Your task to perform on an android device: toggle data saver in the chrome app Image 0: 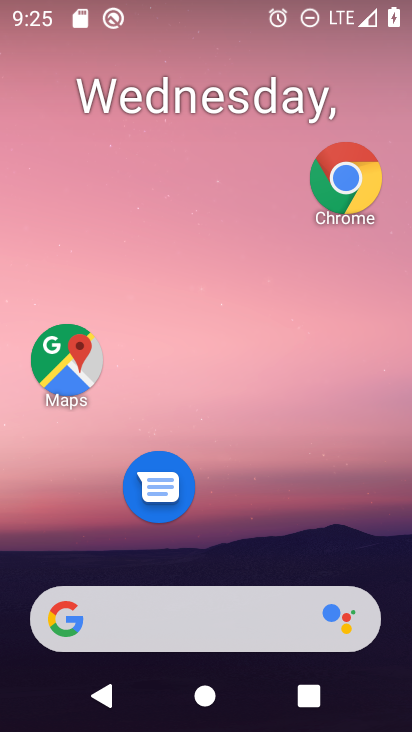
Step 0: drag from (293, 594) to (384, 26)
Your task to perform on an android device: toggle data saver in the chrome app Image 1: 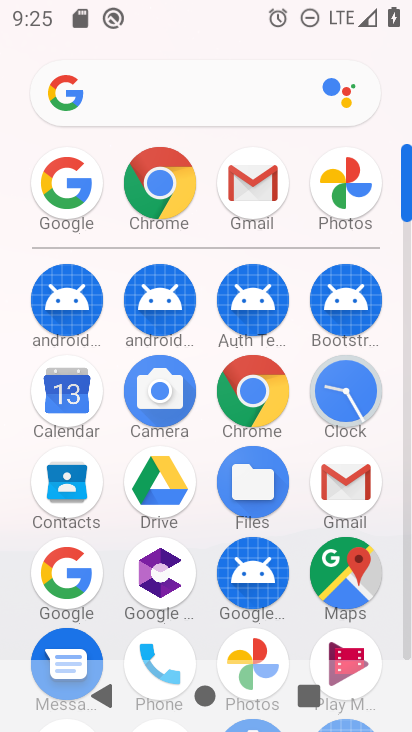
Step 1: click (262, 405)
Your task to perform on an android device: toggle data saver in the chrome app Image 2: 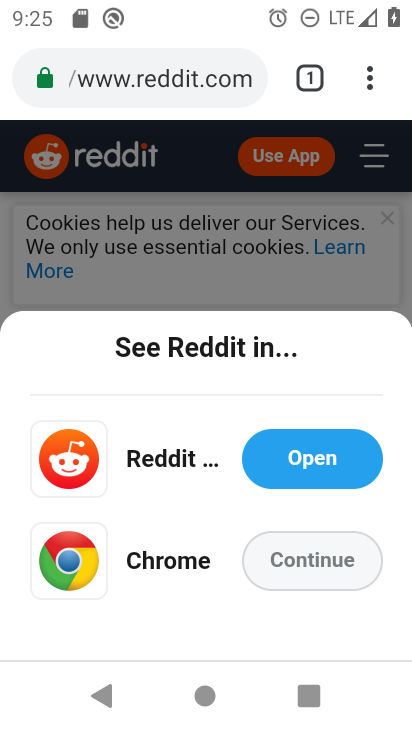
Step 2: click (380, 84)
Your task to perform on an android device: toggle data saver in the chrome app Image 3: 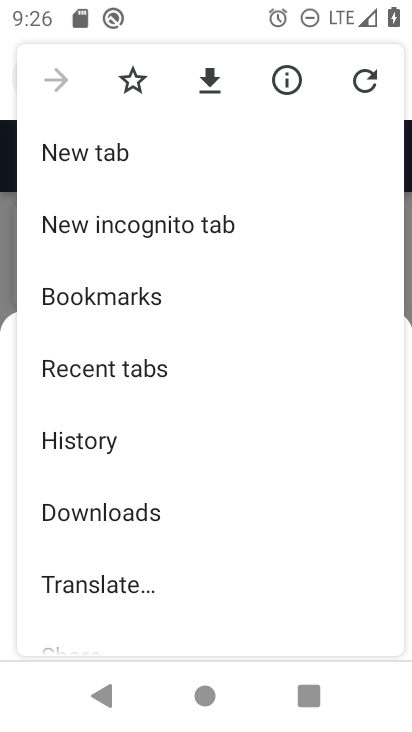
Step 3: drag from (100, 537) to (150, 1)
Your task to perform on an android device: toggle data saver in the chrome app Image 4: 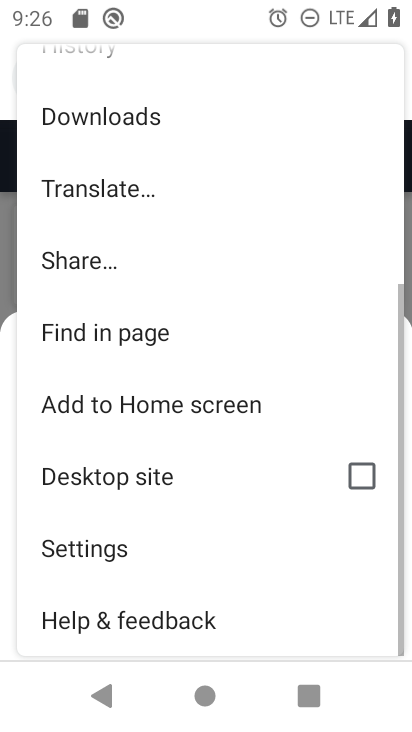
Step 4: click (90, 547)
Your task to perform on an android device: toggle data saver in the chrome app Image 5: 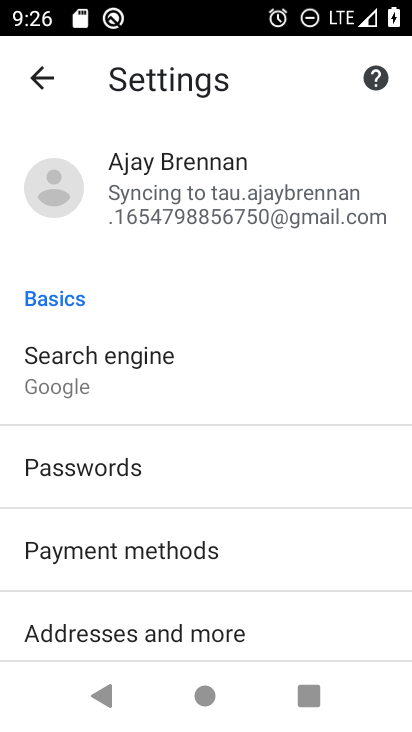
Step 5: drag from (91, 549) to (130, 96)
Your task to perform on an android device: toggle data saver in the chrome app Image 6: 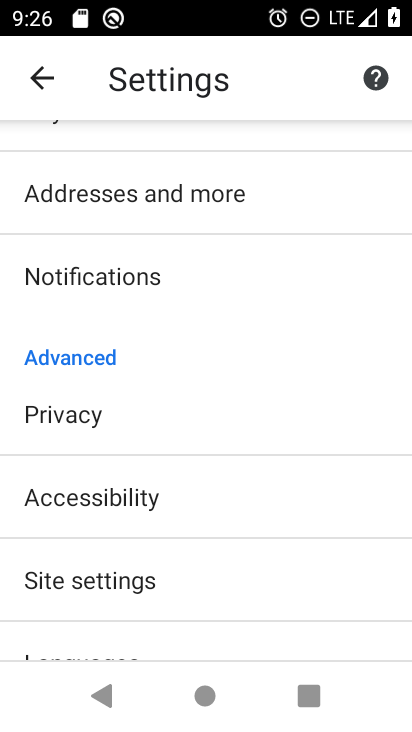
Step 6: drag from (108, 587) to (111, 226)
Your task to perform on an android device: toggle data saver in the chrome app Image 7: 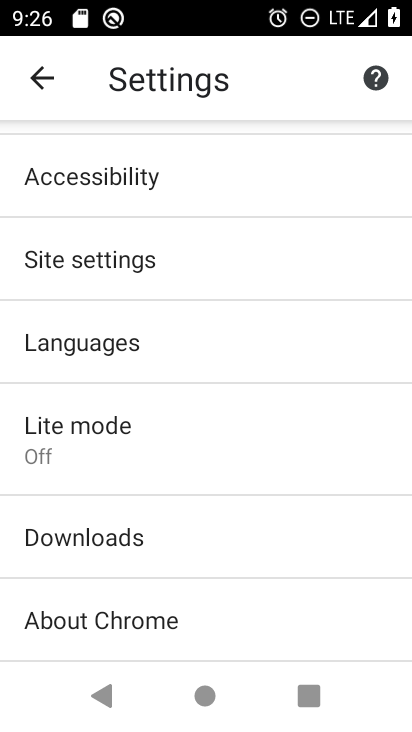
Step 7: click (108, 433)
Your task to perform on an android device: toggle data saver in the chrome app Image 8: 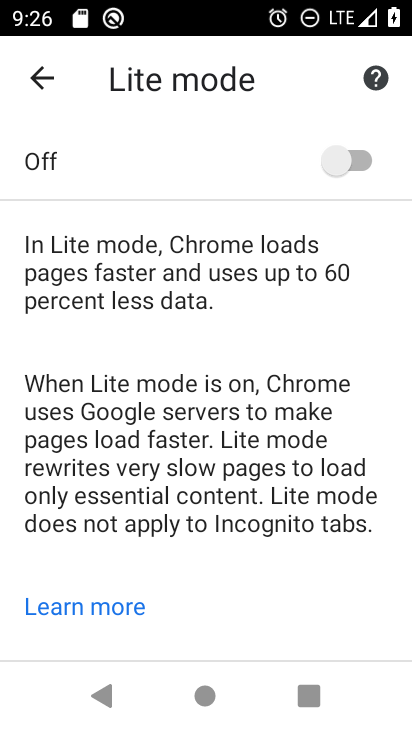
Step 8: click (355, 164)
Your task to perform on an android device: toggle data saver in the chrome app Image 9: 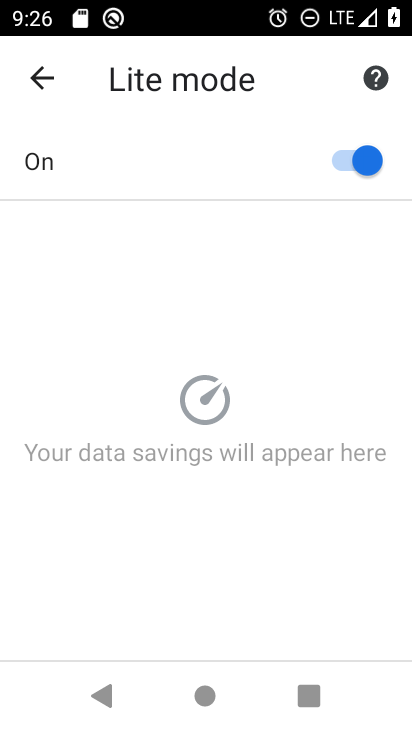
Step 9: task complete